Your task to perform on an android device: Open Yahoo.com Image 0: 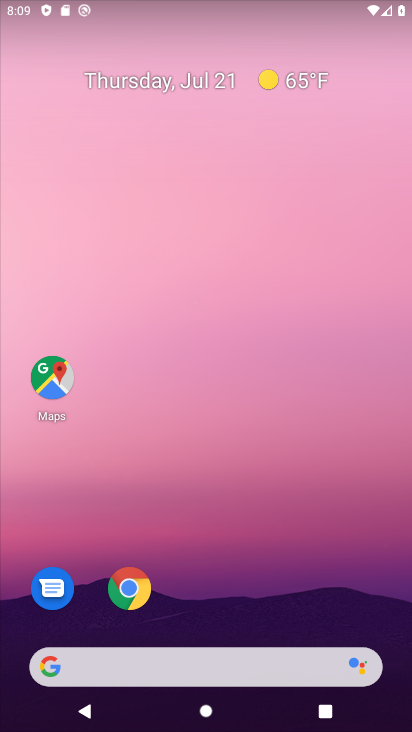
Step 0: click (139, 588)
Your task to perform on an android device: Open Yahoo.com Image 1: 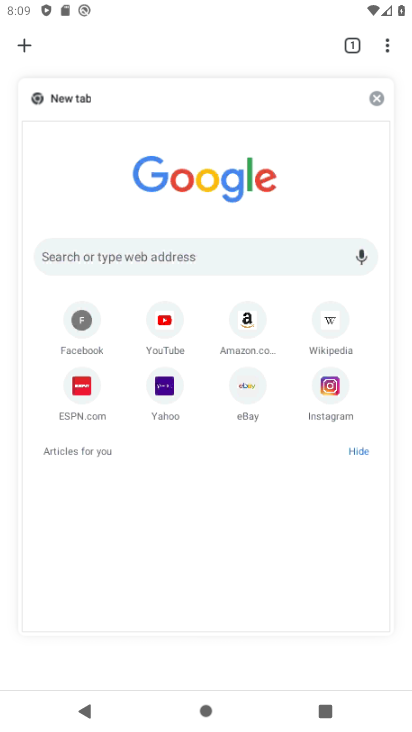
Step 1: click (152, 392)
Your task to perform on an android device: Open Yahoo.com Image 2: 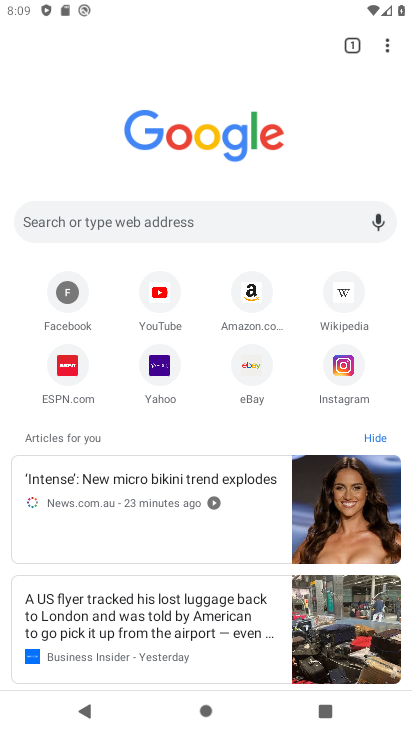
Step 2: click (153, 392)
Your task to perform on an android device: Open Yahoo.com Image 3: 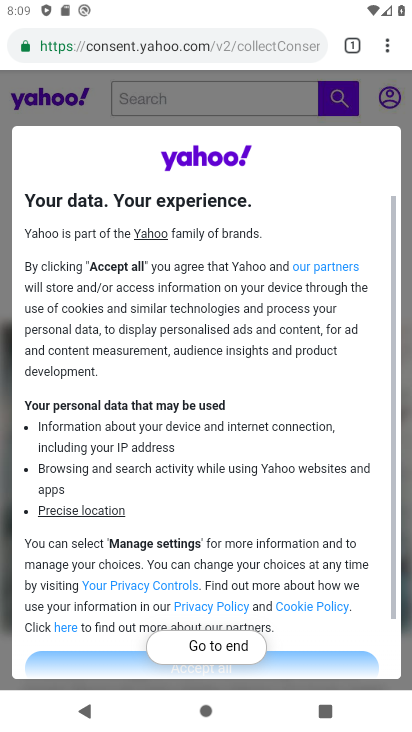
Step 3: click (201, 656)
Your task to perform on an android device: Open Yahoo.com Image 4: 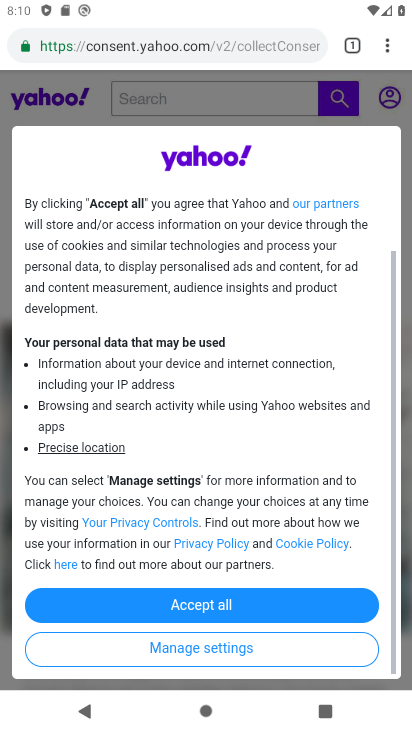
Step 4: click (217, 593)
Your task to perform on an android device: Open Yahoo.com Image 5: 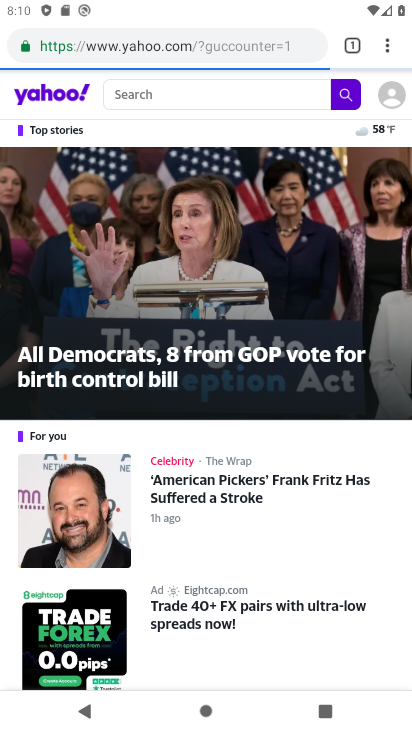
Step 5: task complete